Your task to perform on an android device: add a contact Image 0: 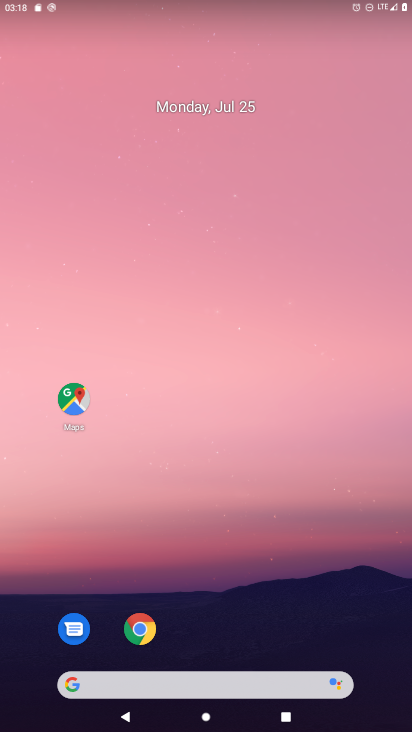
Step 0: drag from (294, 611) to (335, 49)
Your task to perform on an android device: add a contact Image 1: 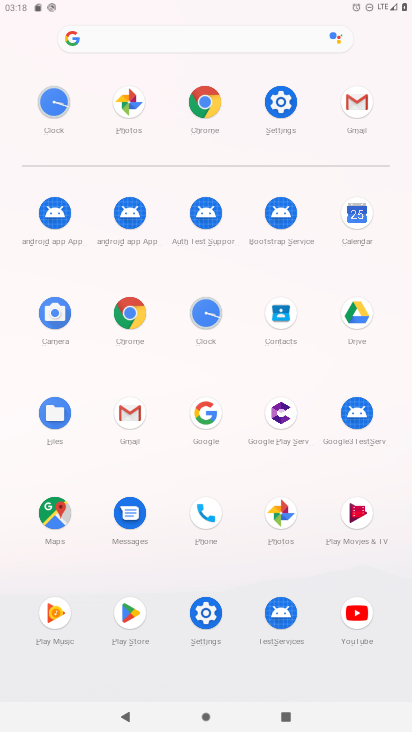
Step 1: click (272, 310)
Your task to perform on an android device: add a contact Image 2: 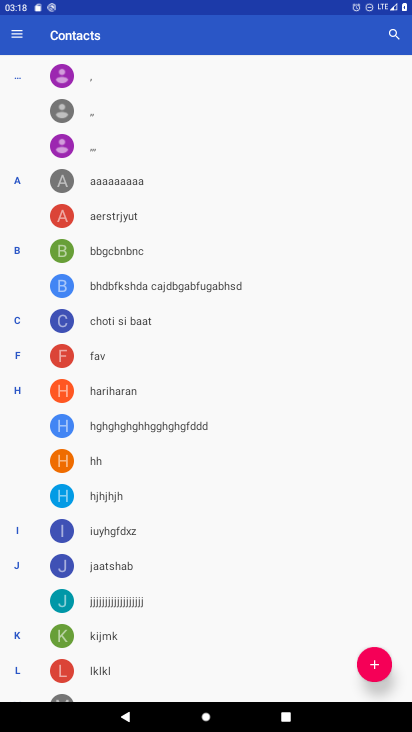
Step 2: click (376, 667)
Your task to perform on an android device: add a contact Image 3: 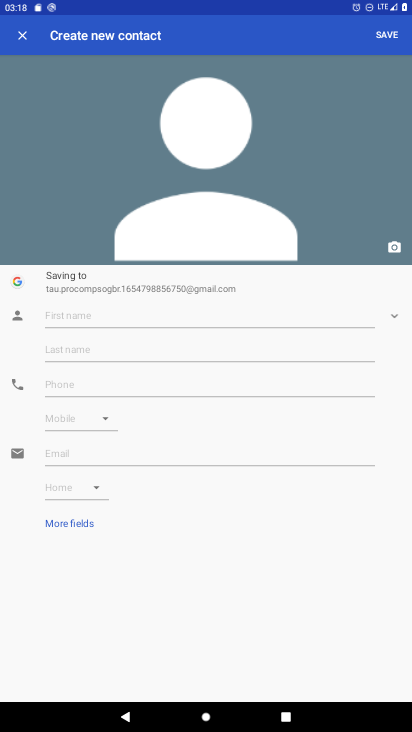
Step 3: click (111, 328)
Your task to perform on an android device: add a contact Image 4: 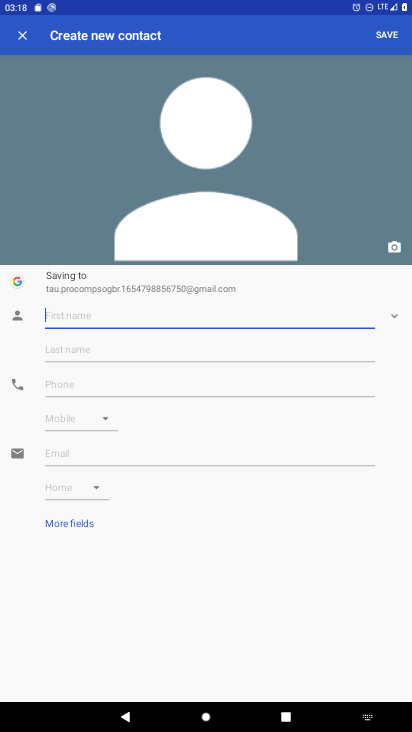
Step 4: type "ttuo"
Your task to perform on an android device: add a contact Image 5: 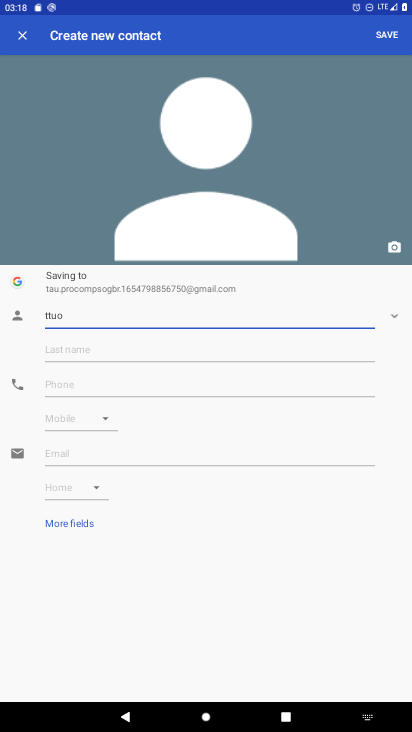
Step 5: click (239, 379)
Your task to perform on an android device: add a contact Image 6: 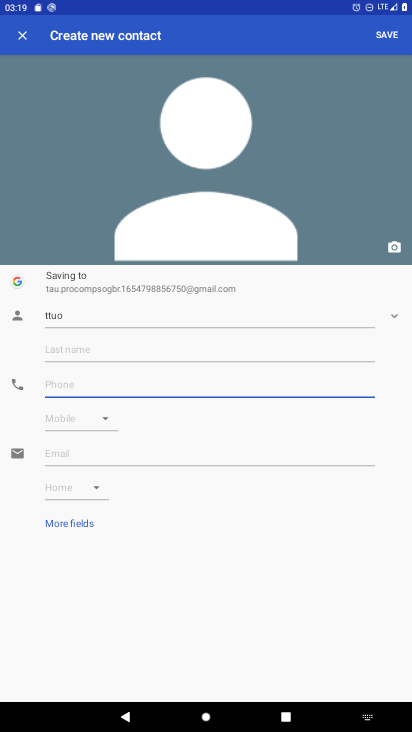
Step 6: type "66321"
Your task to perform on an android device: add a contact Image 7: 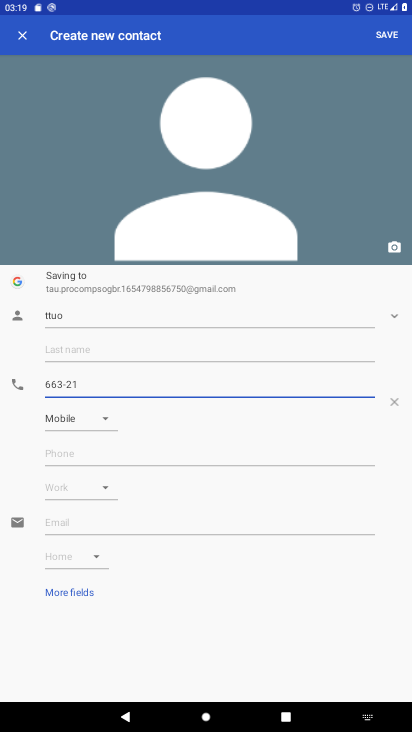
Step 7: click (384, 31)
Your task to perform on an android device: add a contact Image 8: 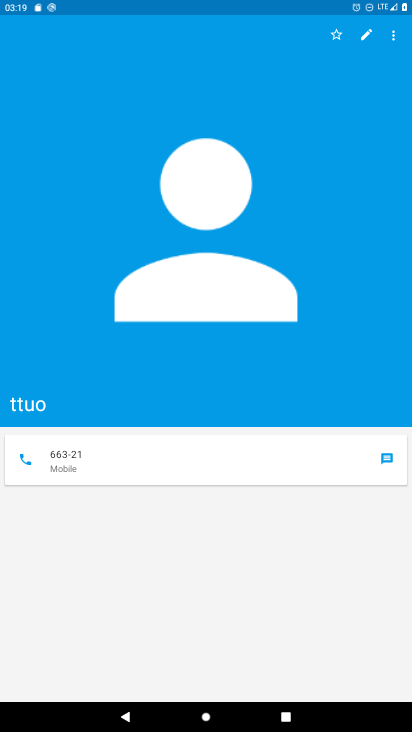
Step 8: task complete